Your task to perform on an android device: change the clock style Image 0: 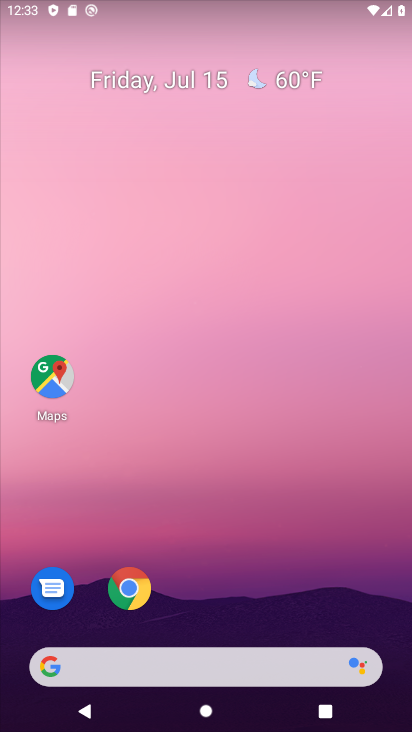
Step 0: drag from (272, 591) to (272, 77)
Your task to perform on an android device: change the clock style Image 1: 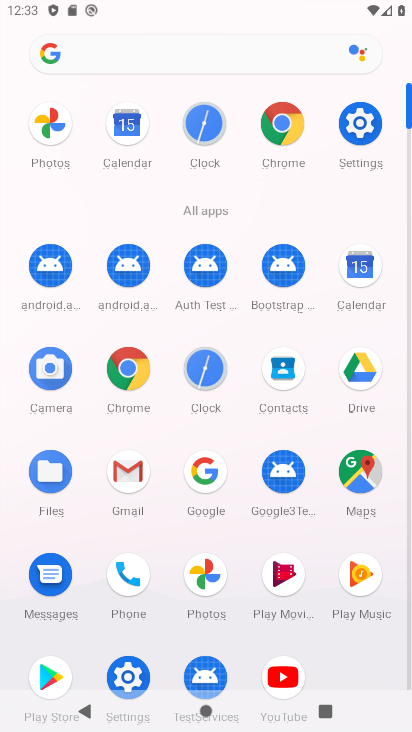
Step 1: click (205, 386)
Your task to perform on an android device: change the clock style Image 2: 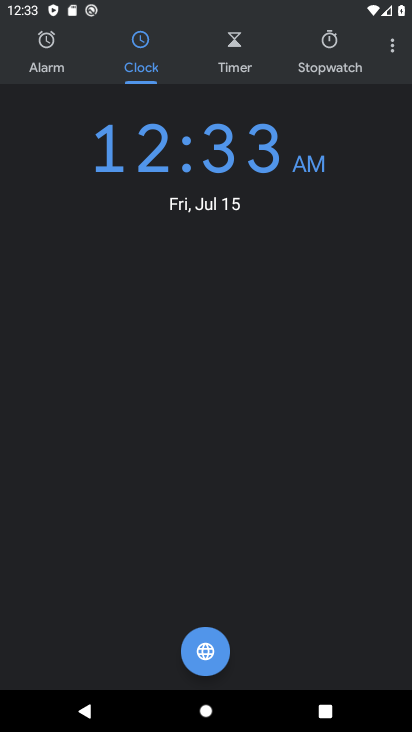
Step 2: click (390, 38)
Your task to perform on an android device: change the clock style Image 3: 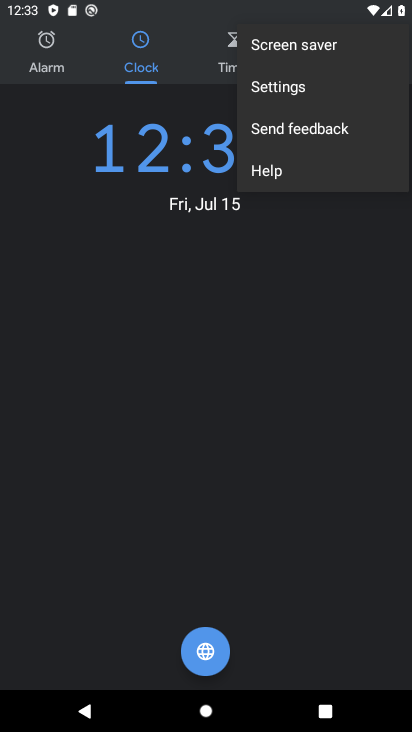
Step 3: click (311, 81)
Your task to perform on an android device: change the clock style Image 4: 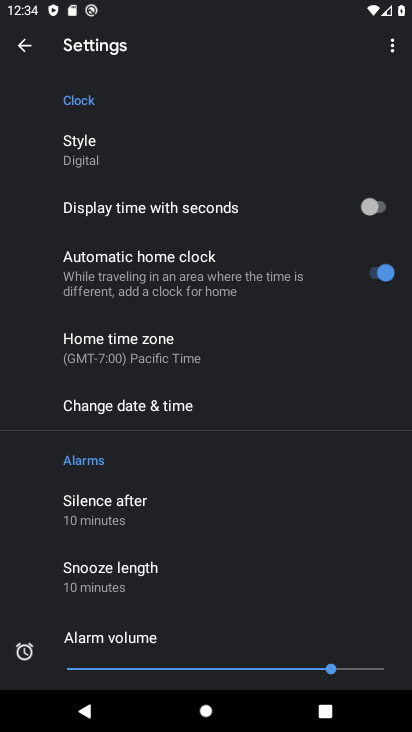
Step 4: click (82, 157)
Your task to perform on an android device: change the clock style Image 5: 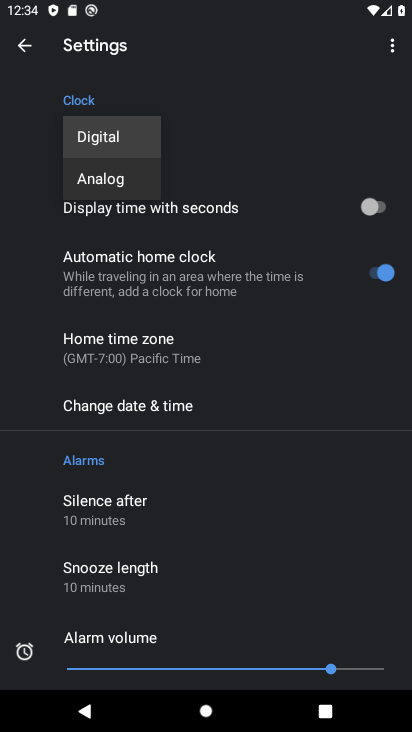
Step 5: click (92, 193)
Your task to perform on an android device: change the clock style Image 6: 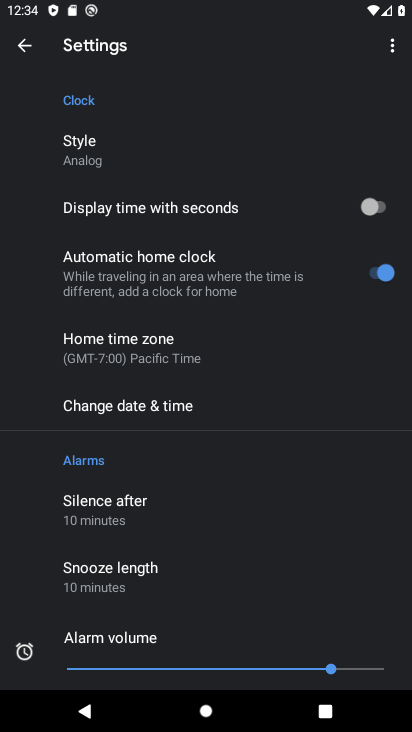
Step 6: task complete